Your task to perform on an android device: Go to Amazon Image 0: 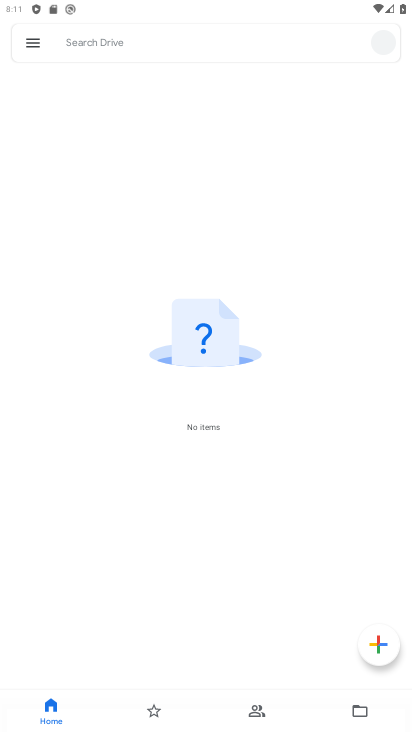
Step 0: press home button
Your task to perform on an android device: Go to Amazon Image 1: 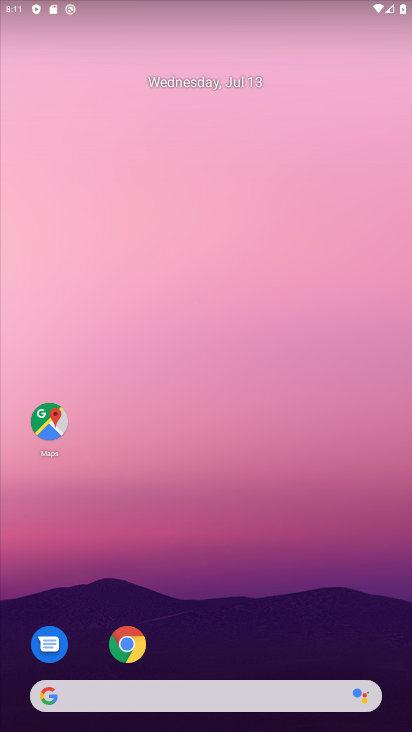
Step 1: drag from (247, 728) to (252, 344)
Your task to perform on an android device: Go to Amazon Image 2: 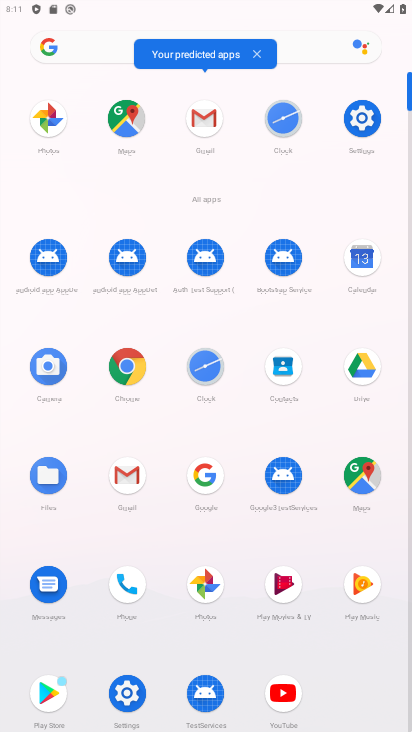
Step 2: click (121, 367)
Your task to perform on an android device: Go to Amazon Image 3: 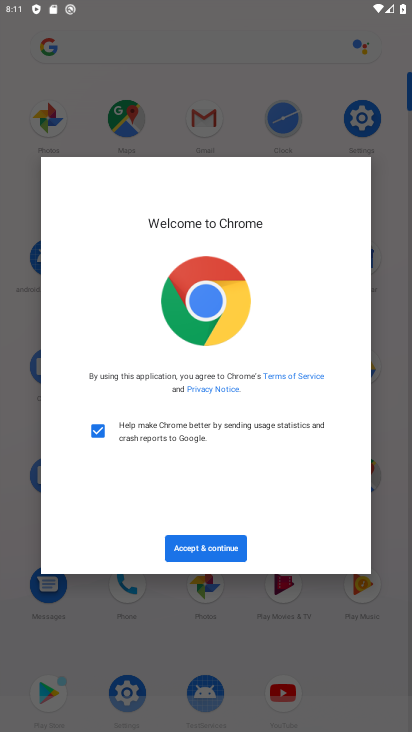
Step 3: click (211, 548)
Your task to perform on an android device: Go to Amazon Image 4: 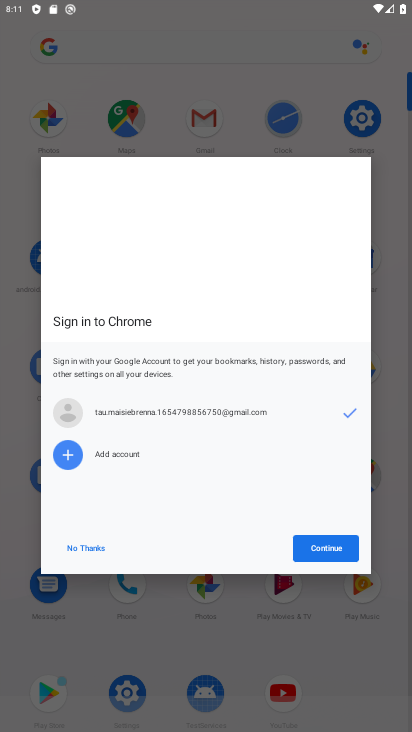
Step 4: click (331, 545)
Your task to perform on an android device: Go to Amazon Image 5: 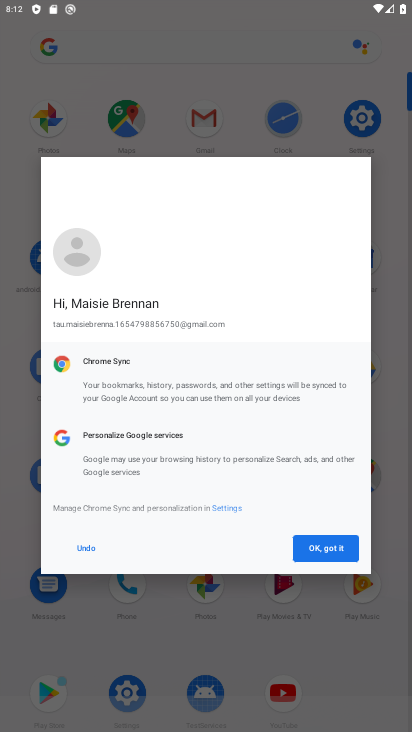
Step 5: click (331, 545)
Your task to perform on an android device: Go to Amazon Image 6: 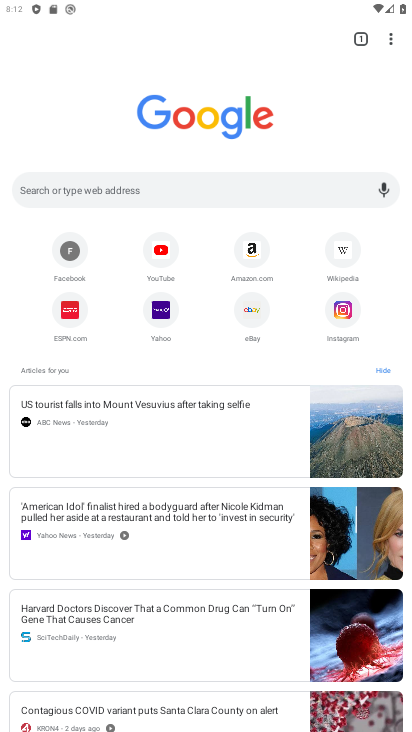
Step 6: click (251, 247)
Your task to perform on an android device: Go to Amazon Image 7: 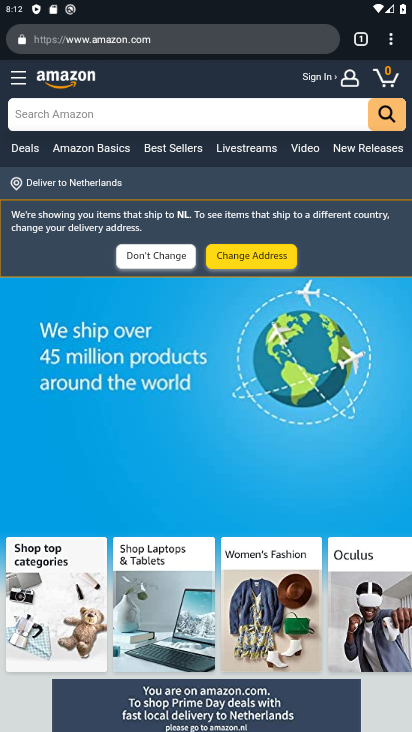
Step 7: task complete